Your task to perform on an android device: turn off translation in the chrome app Image 0: 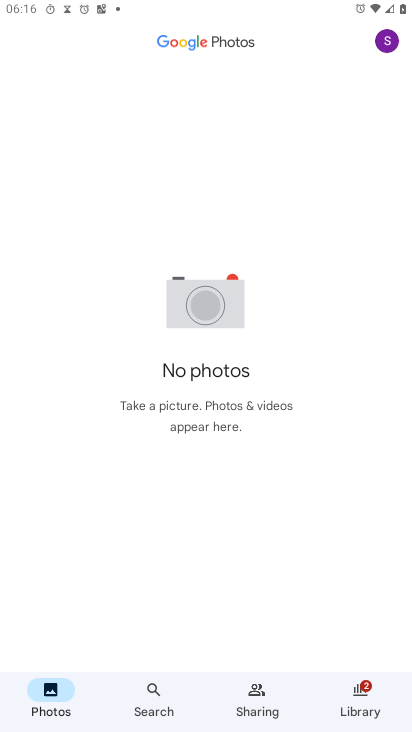
Step 0: press home button
Your task to perform on an android device: turn off translation in the chrome app Image 1: 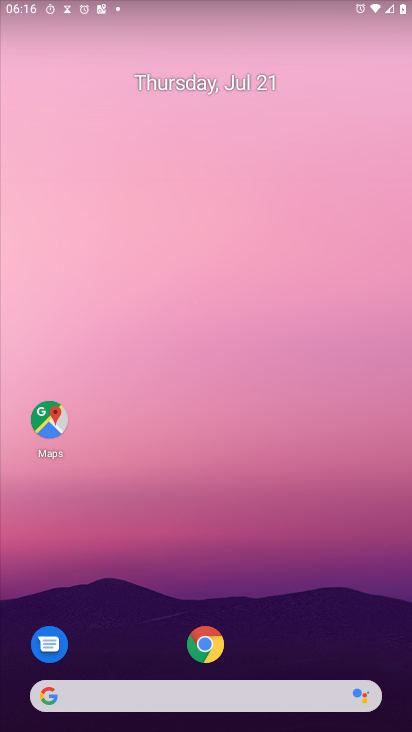
Step 1: click (214, 645)
Your task to perform on an android device: turn off translation in the chrome app Image 2: 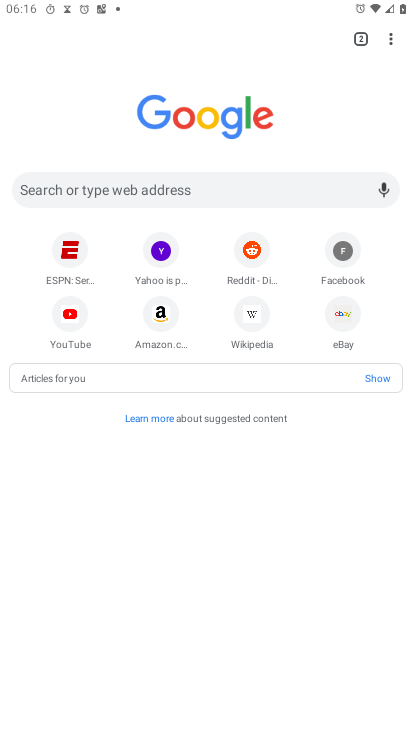
Step 2: drag from (394, 36) to (250, 378)
Your task to perform on an android device: turn off translation in the chrome app Image 3: 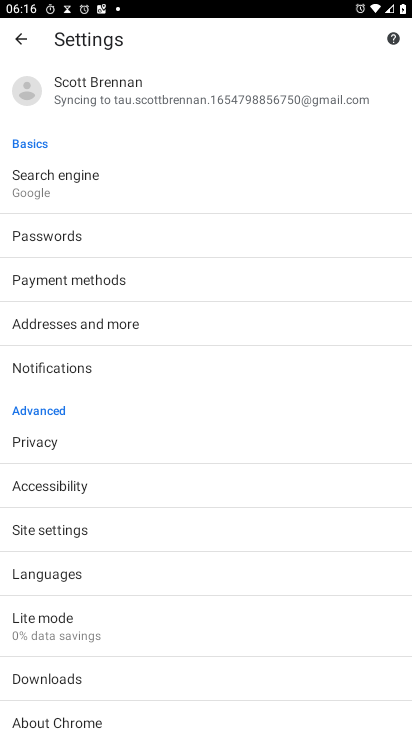
Step 3: click (33, 568)
Your task to perform on an android device: turn off translation in the chrome app Image 4: 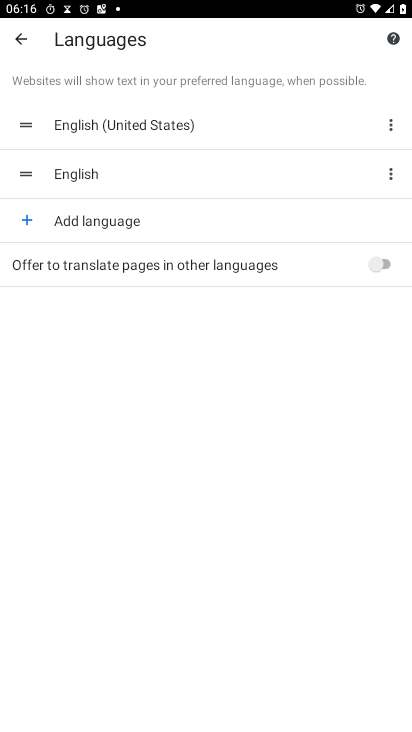
Step 4: task complete